Your task to perform on an android device: turn pop-ups on in chrome Image 0: 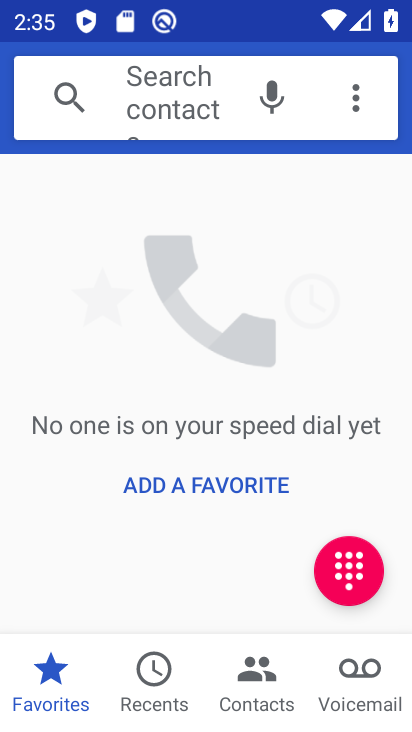
Step 0: press back button
Your task to perform on an android device: turn pop-ups on in chrome Image 1: 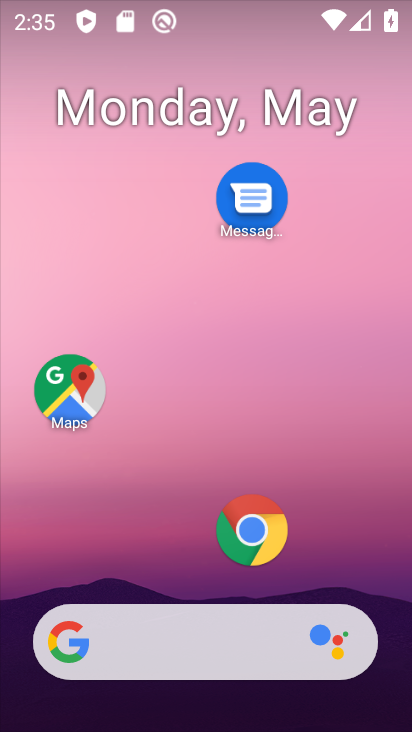
Step 1: click (256, 530)
Your task to perform on an android device: turn pop-ups on in chrome Image 2: 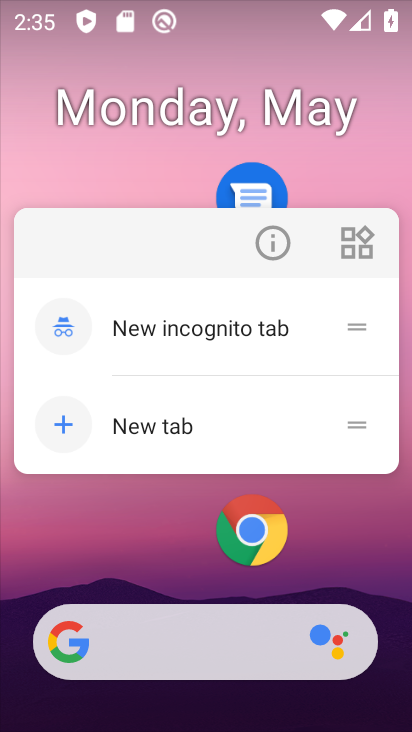
Step 2: click (248, 523)
Your task to perform on an android device: turn pop-ups on in chrome Image 3: 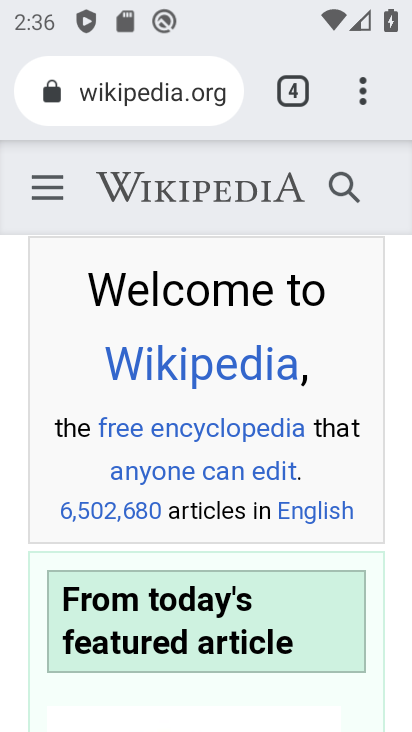
Step 3: drag from (363, 97) to (143, 551)
Your task to perform on an android device: turn pop-ups on in chrome Image 4: 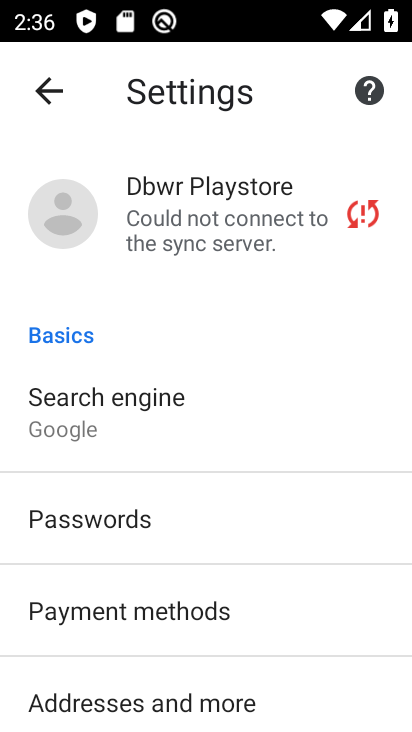
Step 4: drag from (173, 679) to (240, 141)
Your task to perform on an android device: turn pop-ups on in chrome Image 5: 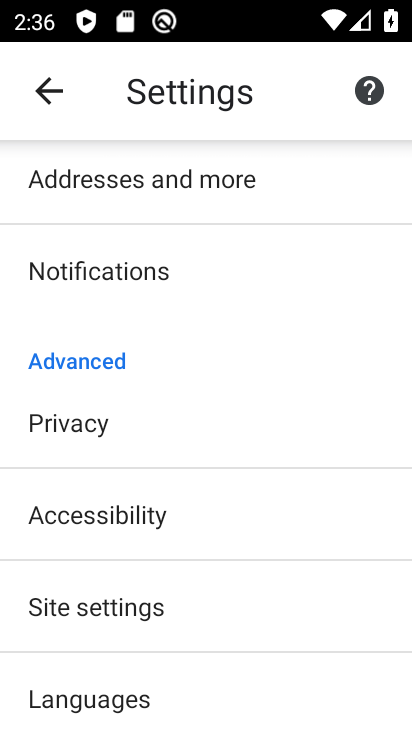
Step 5: click (121, 601)
Your task to perform on an android device: turn pop-ups on in chrome Image 6: 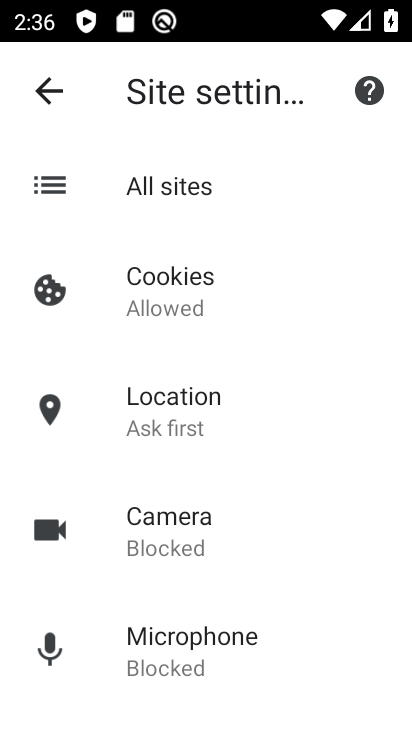
Step 6: drag from (224, 658) to (330, 89)
Your task to perform on an android device: turn pop-ups on in chrome Image 7: 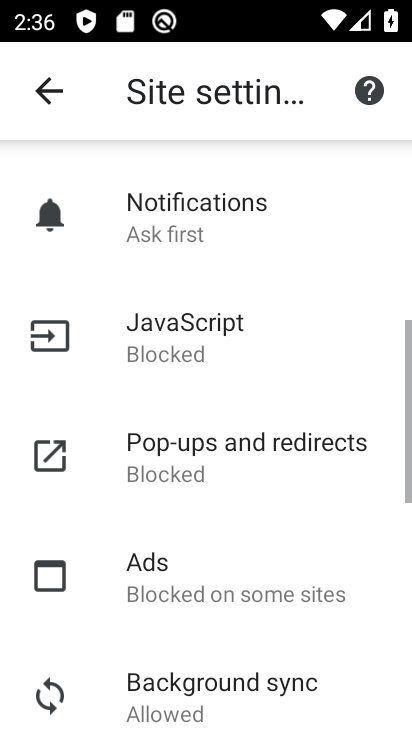
Step 7: click (199, 463)
Your task to perform on an android device: turn pop-ups on in chrome Image 8: 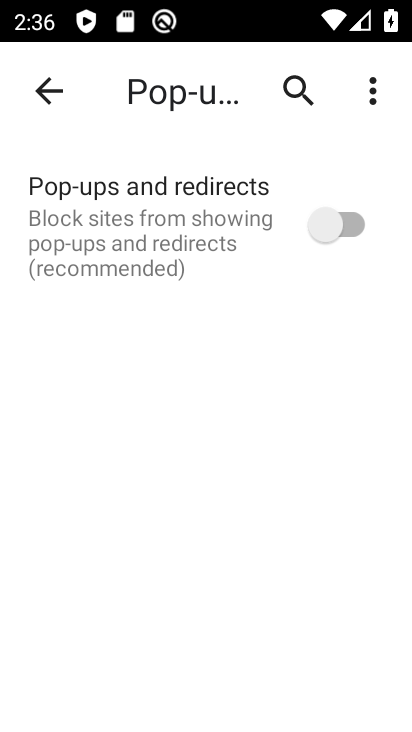
Step 8: click (330, 227)
Your task to perform on an android device: turn pop-ups on in chrome Image 9: 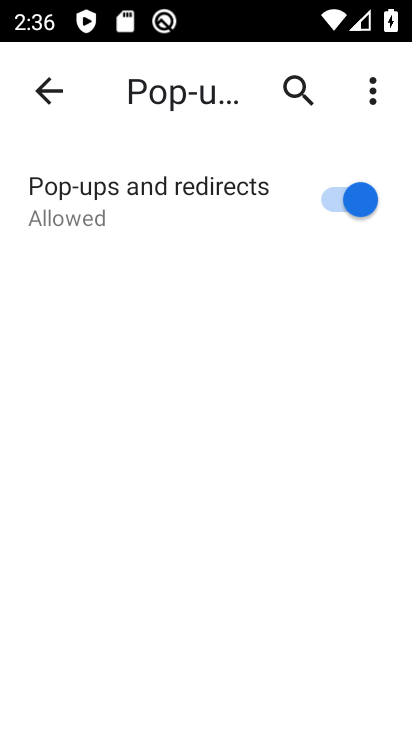
Step 9: task complete